Your task to perform on an android device: turn off location history Image 0: 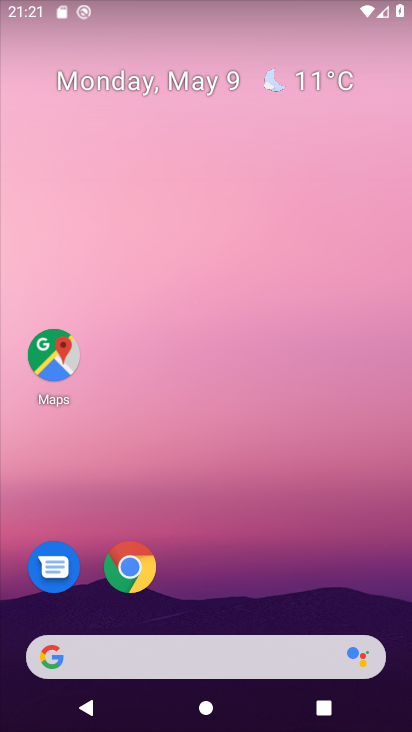
Step 0: drag from (263, 498) to (202, 28)
Your task to perform on an android device: turn off location history Image 1: 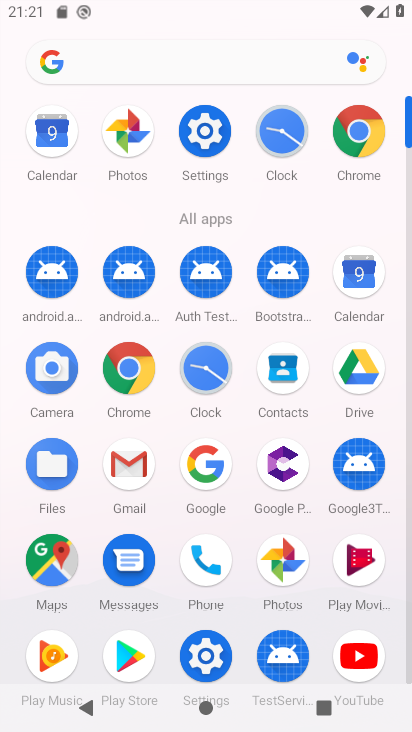
Step 1: click (201, 127)
Your task to perform on an android device: turn off location history Image 2: 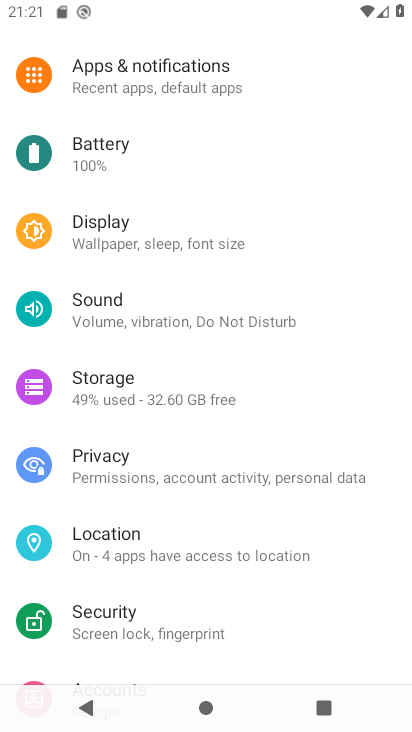
Step 2: click (193, 546)
Your task to perform on an android device: turn off location history Image 3: 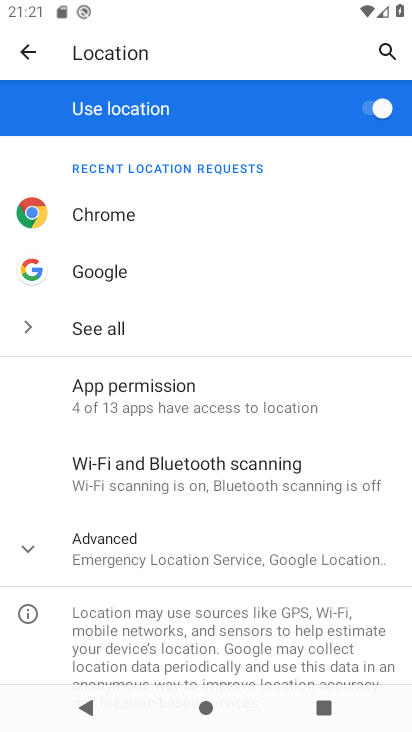
Step 3: click (166, 551)
Your task to perform on an android device: turn off location history Image 4: 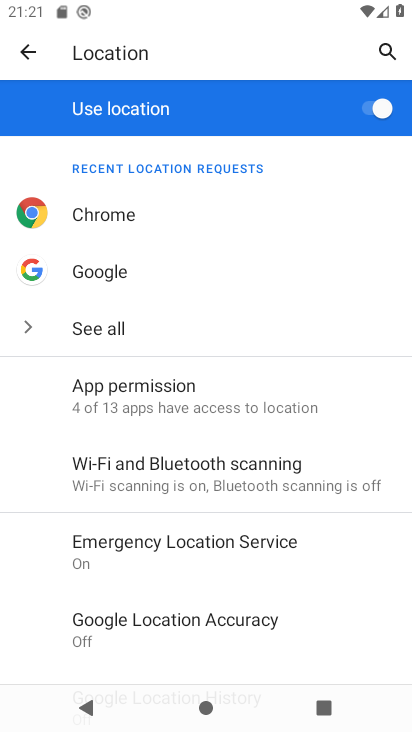
Step 4: drag from (252, 579) to (266, 373)
Your task to perform on an android device: turn off location history Image 5: 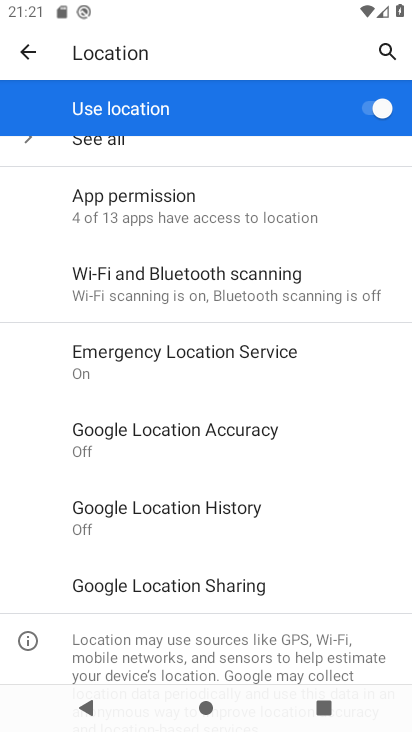
Step 5: click (248, 506)
Your task to perform on an android device: turn off location history Image 6: 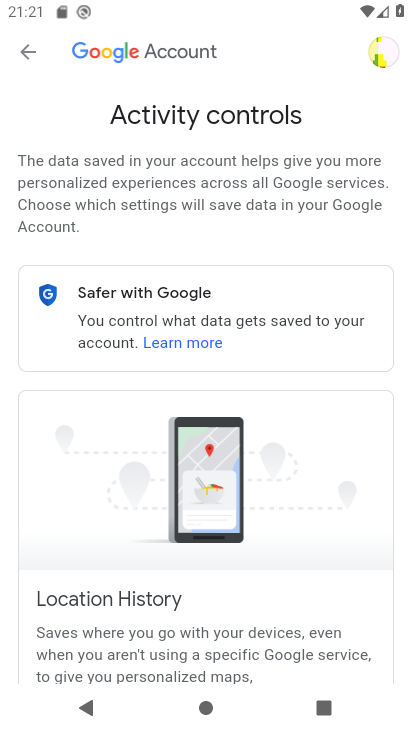
Step 6: drag from (287, 604) to (272, 270)
Your task to perform on an android device: turn off location history Image 7: 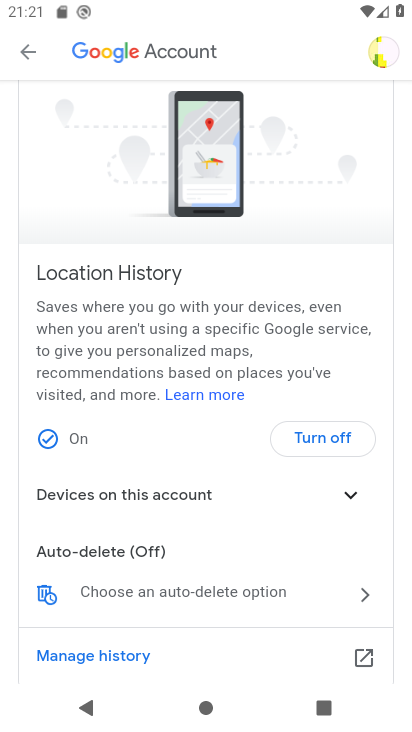
Step 7: click (320, 443)
Your task to perform on an android device: turn off location history Image 8: 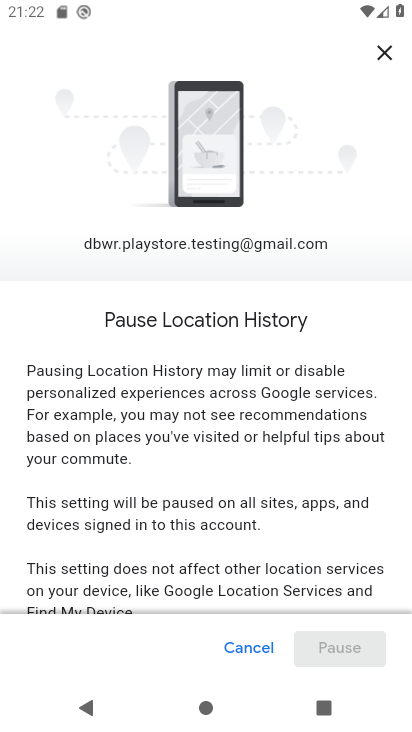
Step 8: drag from (224, 540) to (234, 153)
Your task to perform on an android device: turn off location history Image 9: 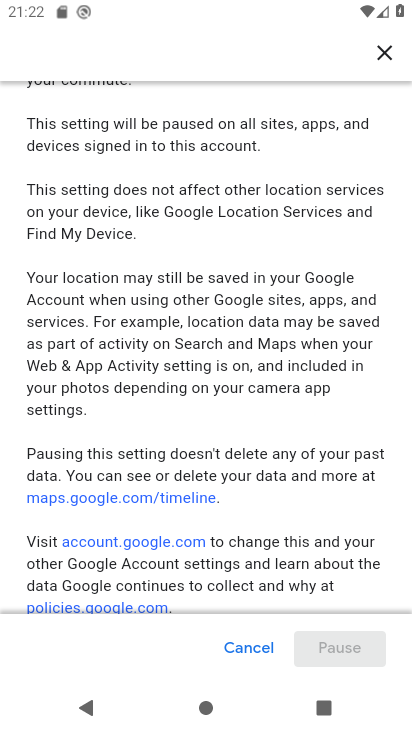
Step 9: drag from (229, 481) to (237, 163)
Your task to perform on an android device: turn off location history Image 10: 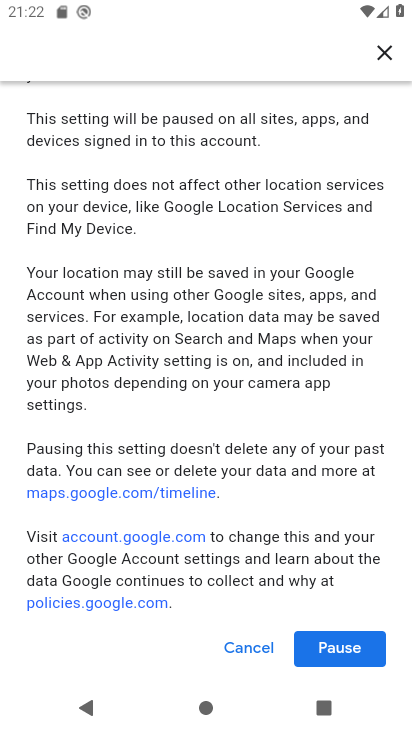
Step 10: click (339, 646)
Your task to perform on an android device: turn off location history Image 11: 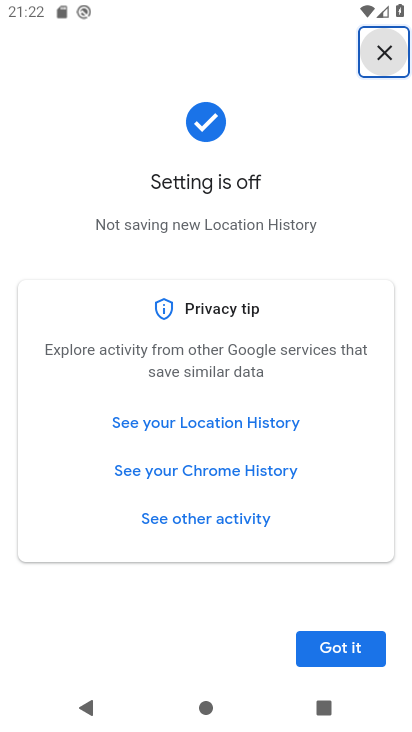
Step 11: click (354, 639)
Your task to perform on an android device: turn off location history Image 12: 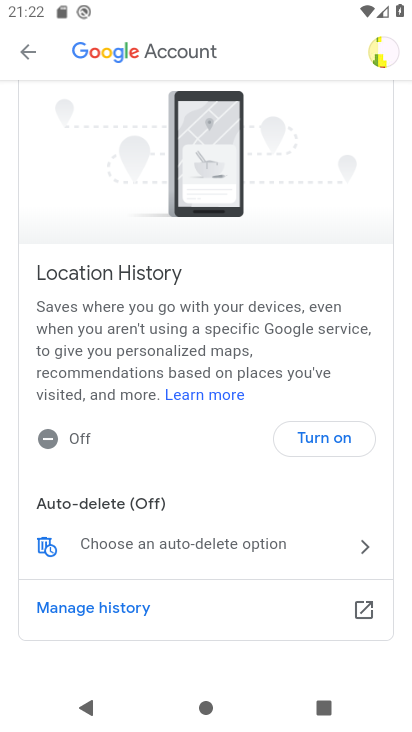
Step 12: task complete